Your task to perform on an android device: refresh tabs in the chrome app Image 0: 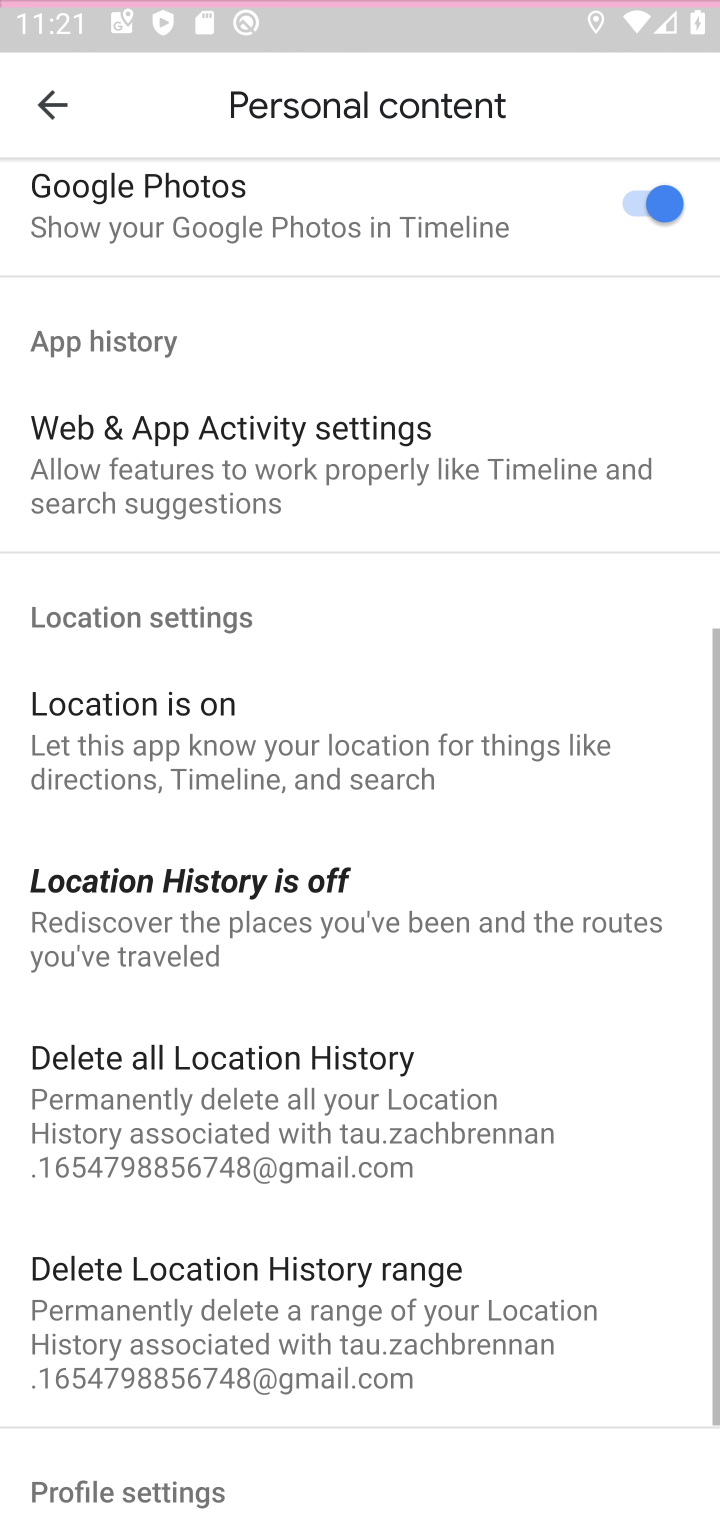
Step 0: press home button
Your task to perform on an android device: refresh tabs in the chrome app Image 1: 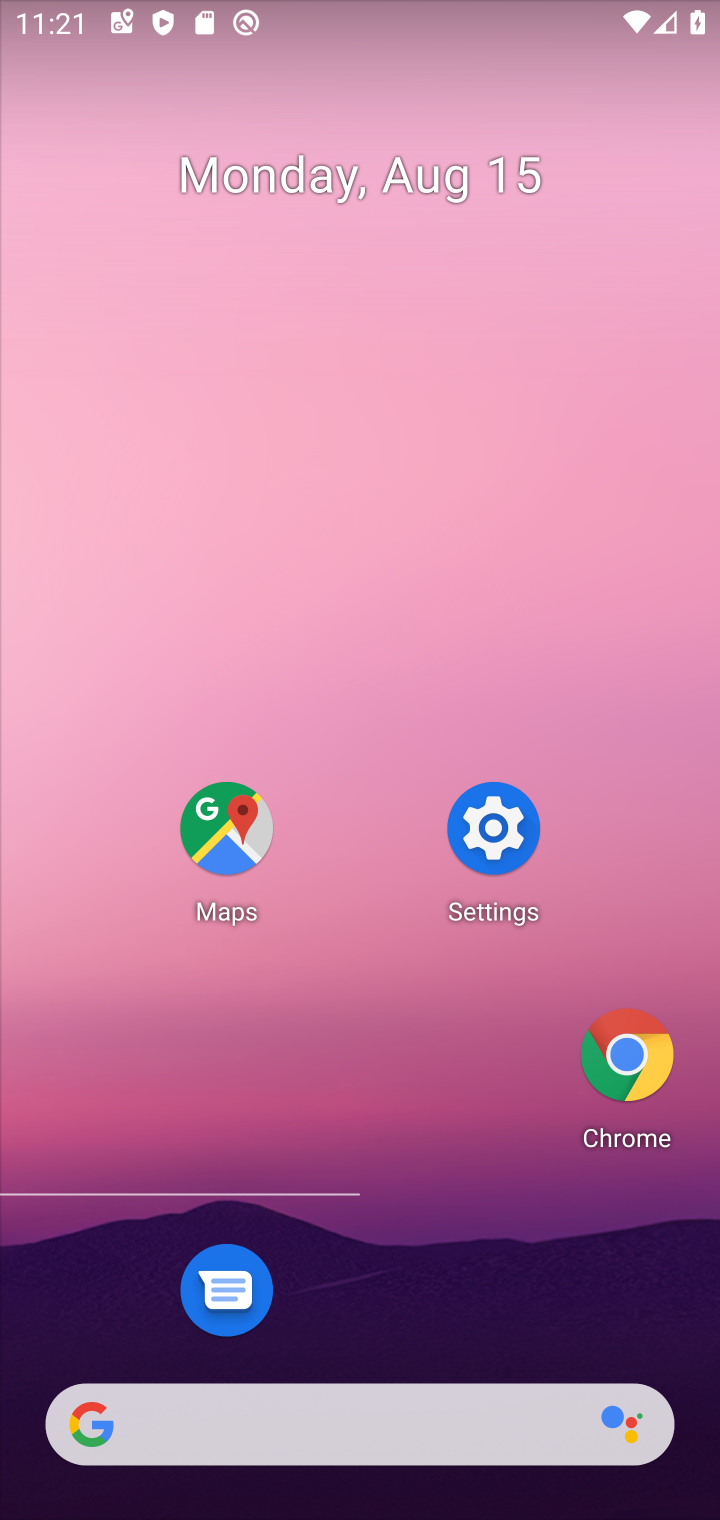
Step 1: click (623, 1060)
Your task to perform on an android device: refresh tabs in the chrome app Image 2: 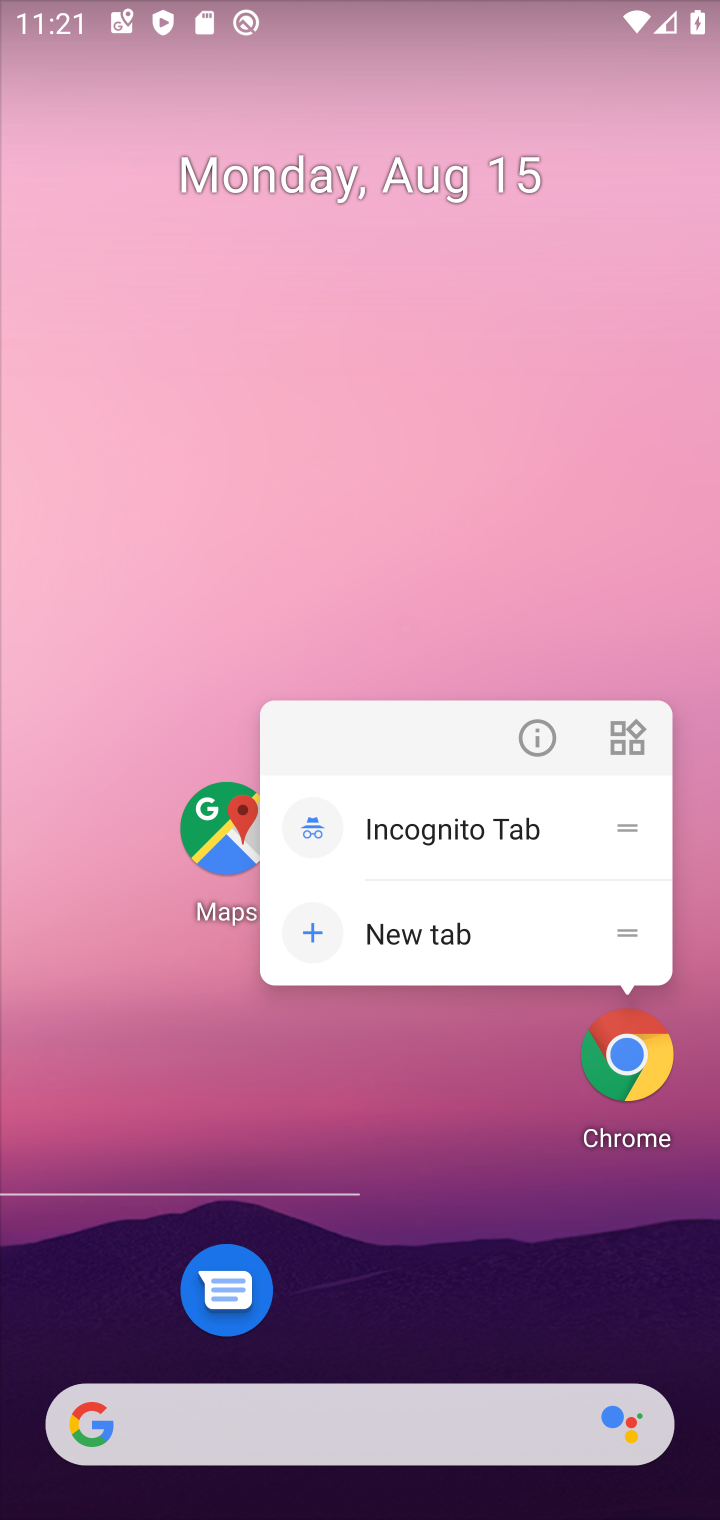
Step 2: click (623, 1066)
Your task to perform on an android device: refresh tabs in the chrome app Image 3: 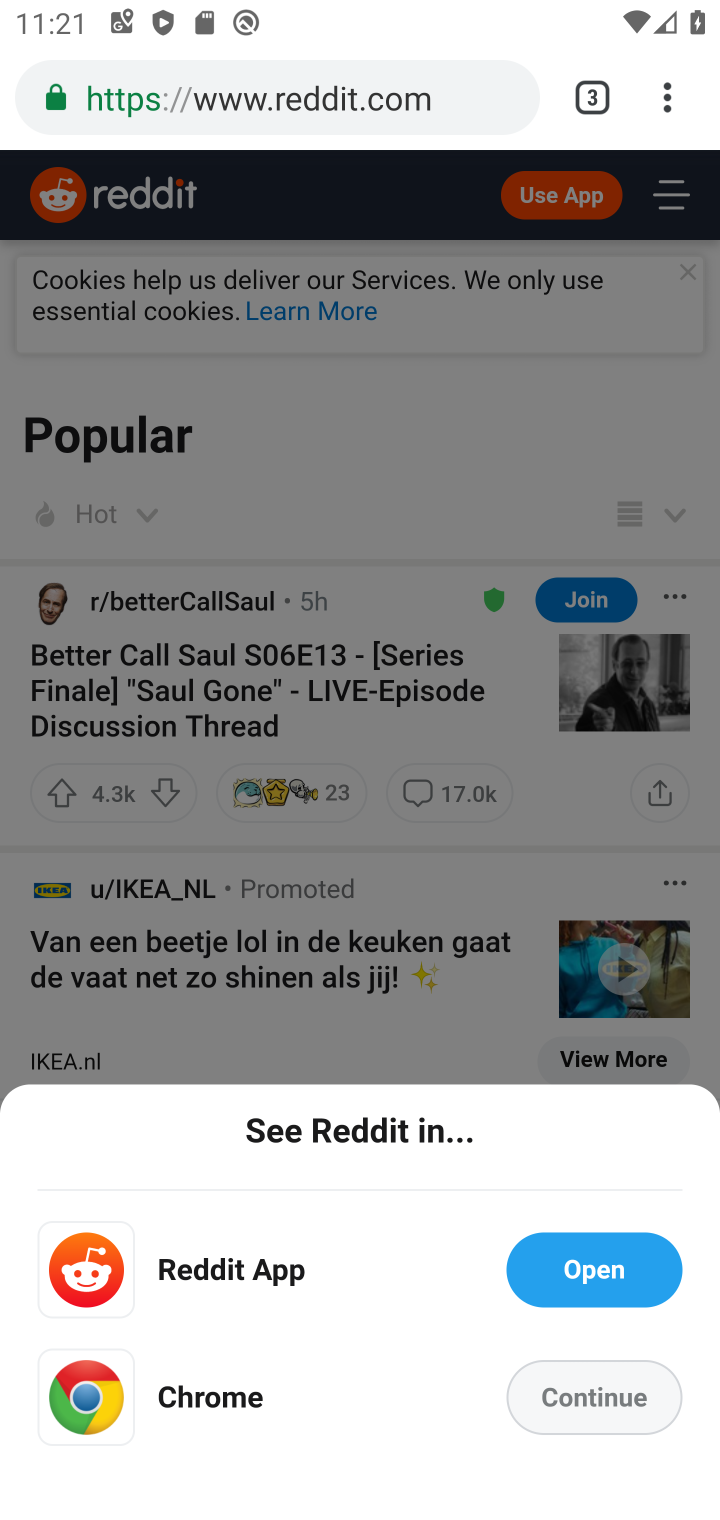
Step 3: click (662, 101)
Your task to perform on an android device: refresh tabs in the chrome app Image 4: 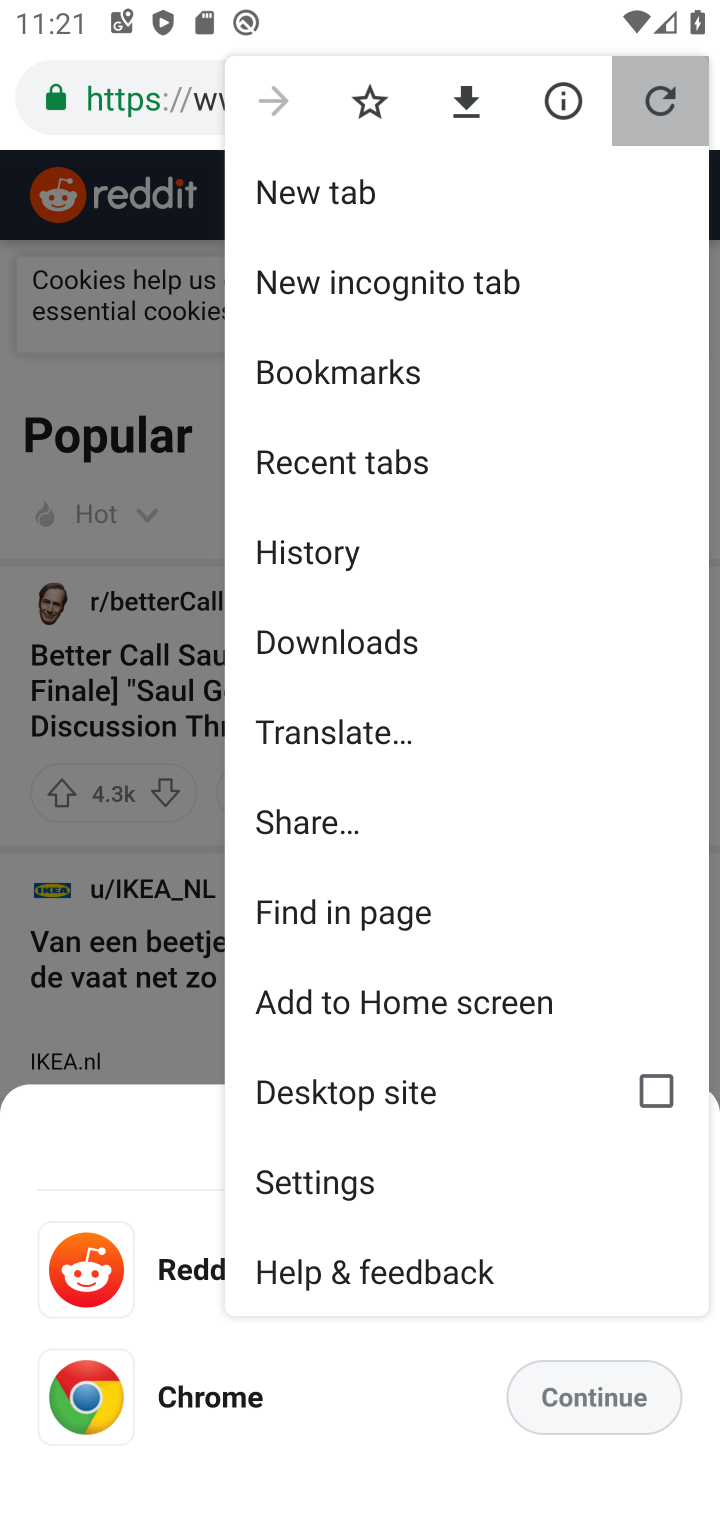
Step 4: click (662, 101)
Your task to perform on an android device: refresh tabs in the chrome app Image 5: 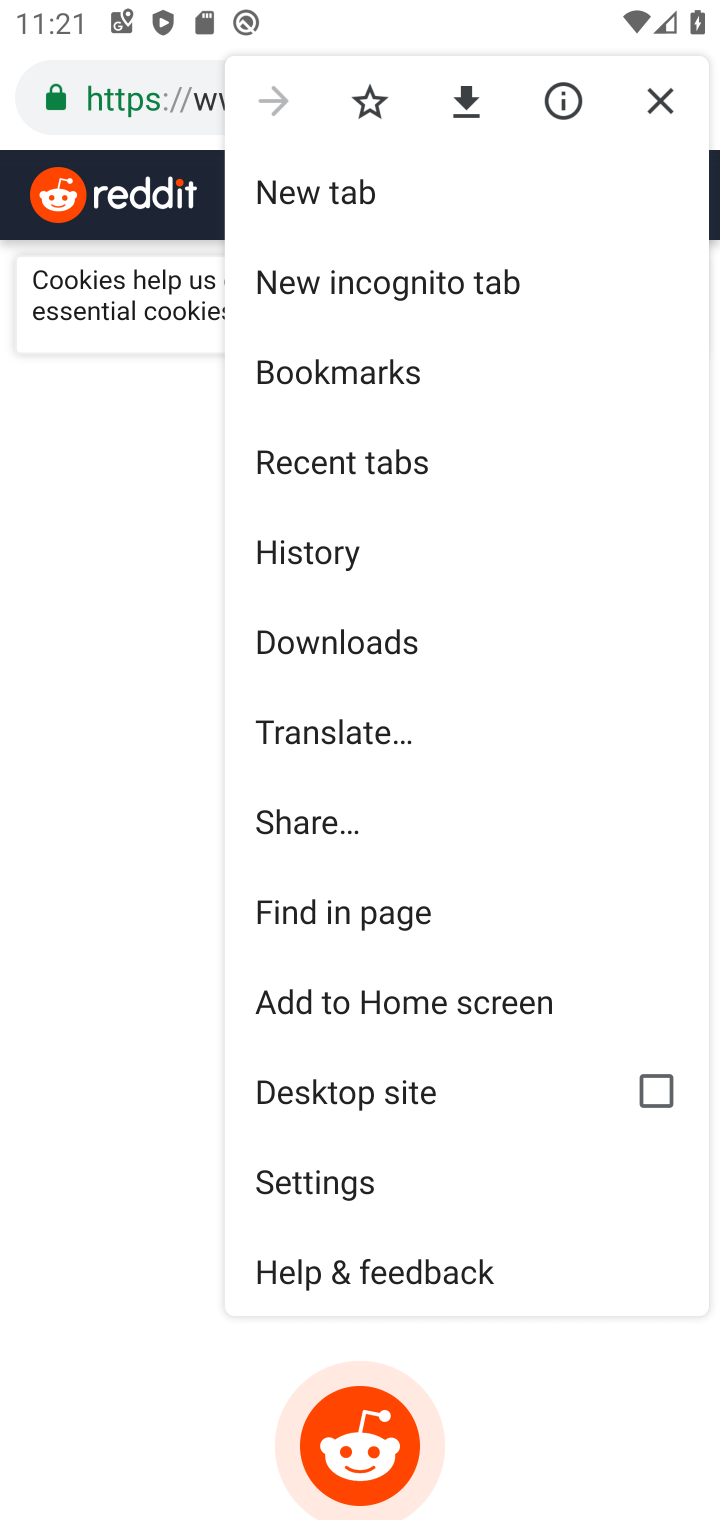
Step 5: task complete